Your task to perform on an android device: toggle improve location accuracy Image 0: 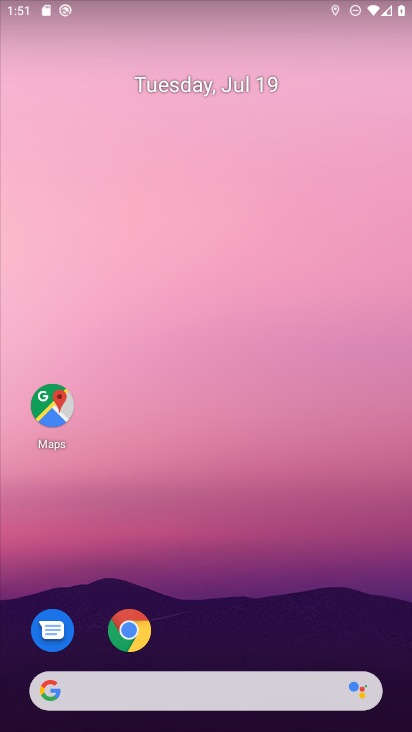
Step 0: press home button
Your task to perform on an android device: toggle improve location accuracy Image 1: 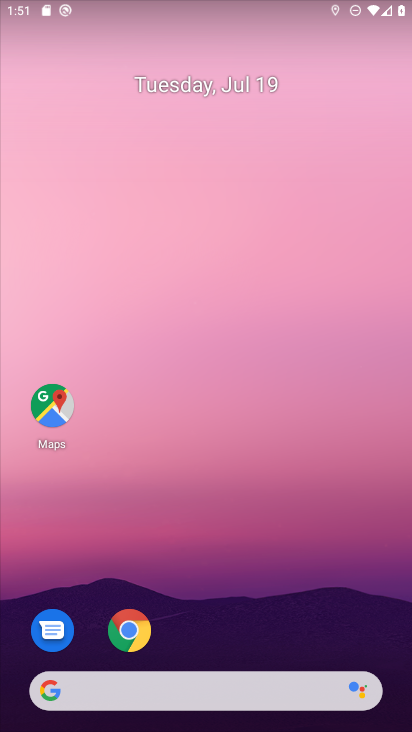
Step 1: drag from (162, 689) to (171, 170)
Your task to perform on an android device: toggle improve location accuracy Image 2: 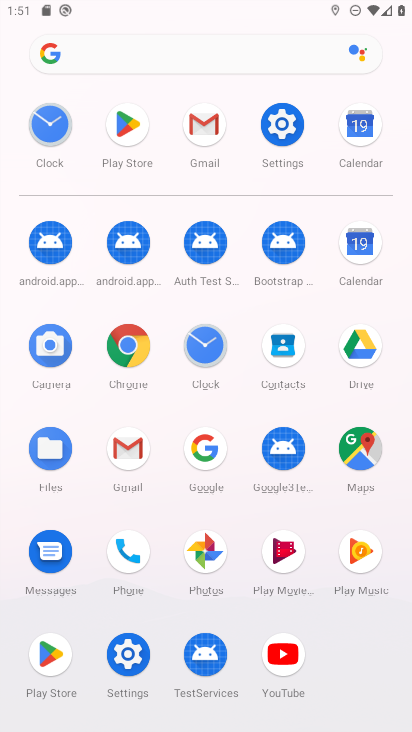
Step 2: click (273, 133)
Your task to perform on an android device: toggle improve location accuracy Image 3: 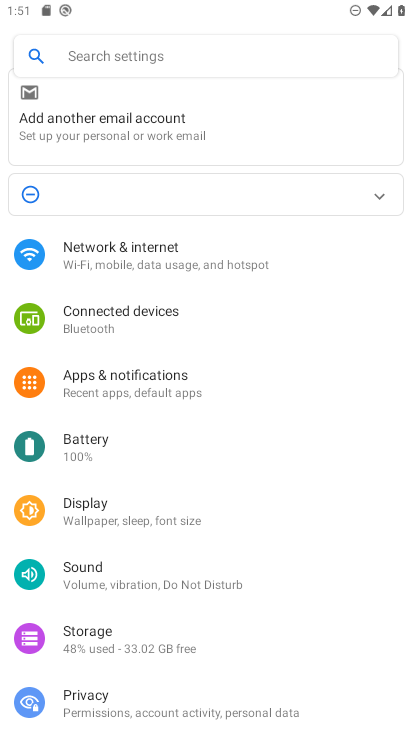
Step 3: drag from (258, 571) to (275, 202)
Your task to perform on an android device: toggle improve location accuracy Image 4: 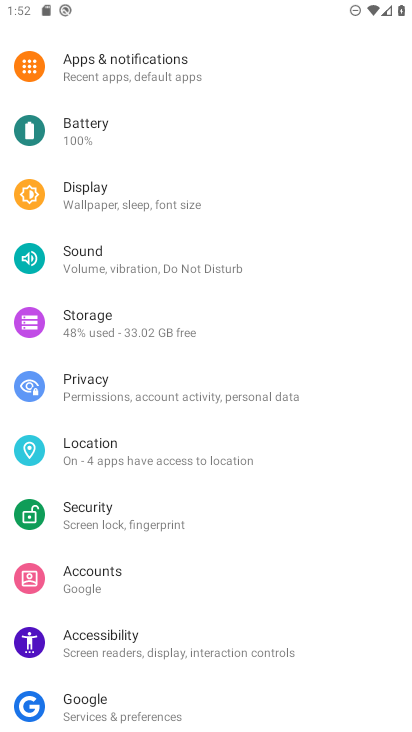
Step 4: click (154, 455)
Your task to perform on an android device: toggle improve location accuracy Image 5: 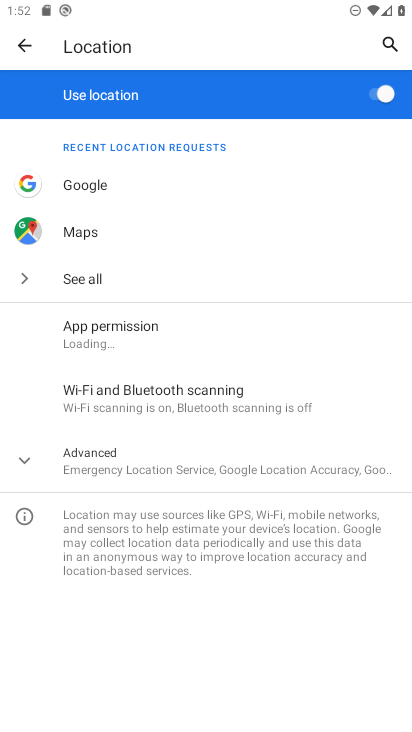
Step 5: click (125, 454)
Your task to perform on an android device: toggle improve location accuracy Image 6: 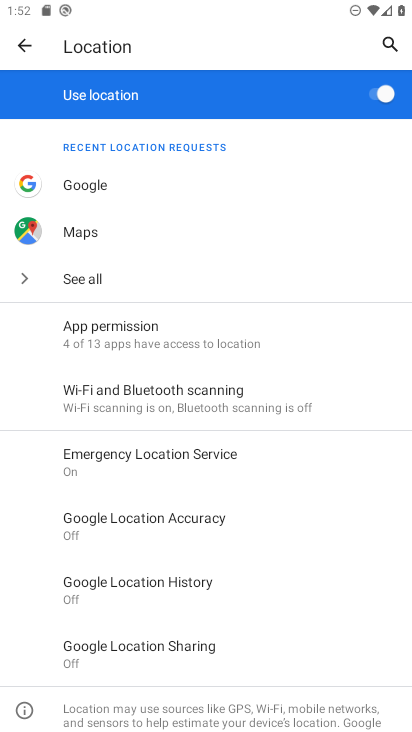
Step 6: click (185, 517)
Your task to perform on an android device: toggle improve location accuracy Image 7: 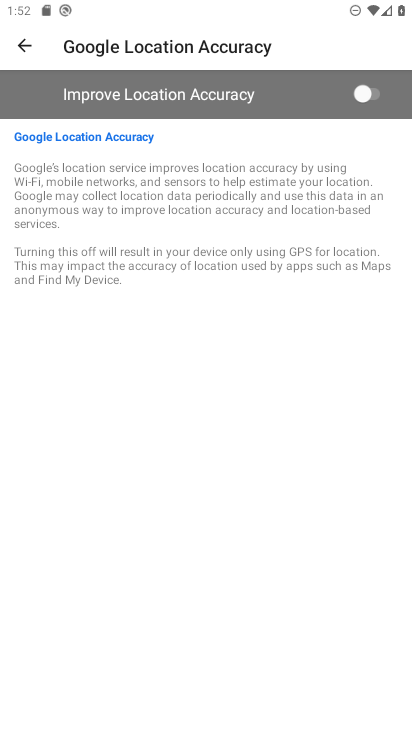
Step 7: click (372, 97)
Your task to perform on an android device: toggle improve location accuracy Image 8: 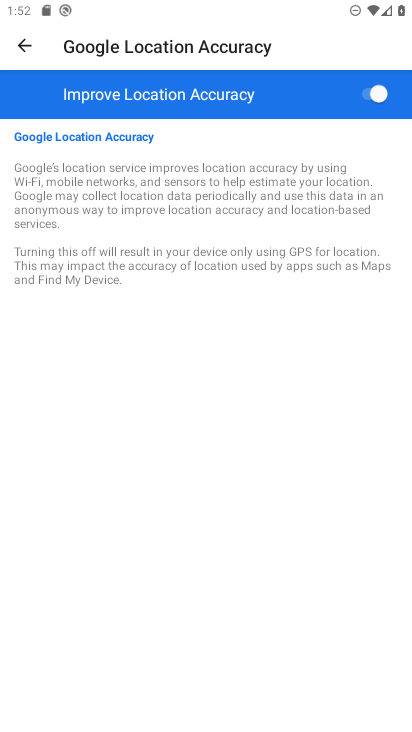
Step 8: task complete